Your task to perform on an android device: Open wifi settings Image 0: 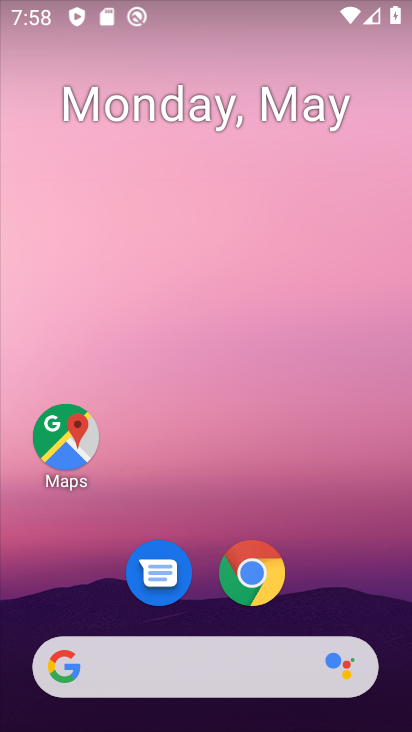
Step 0: drag from (83, 602) to (254, 83)
Your task to perform on an android device: Open wifi settings Image 1: 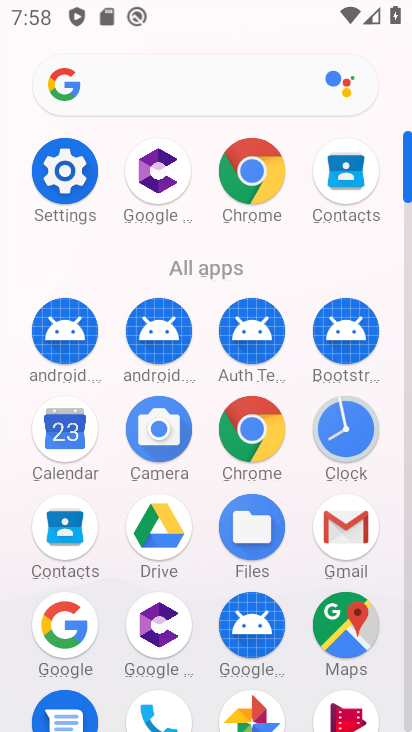
Step 1: drag from (190, 578) to (250, 330)
Your task to perform on an android device: Open wifi settings Image 2: 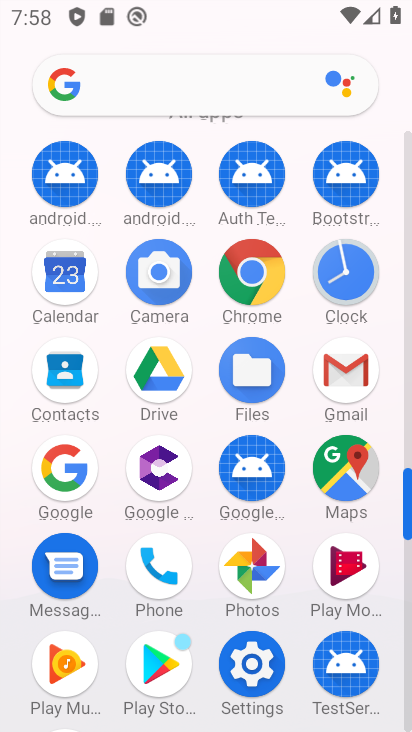
Step 2: click (249, 669)
Your task to perform on an android device: Open wifi settings Image 3: 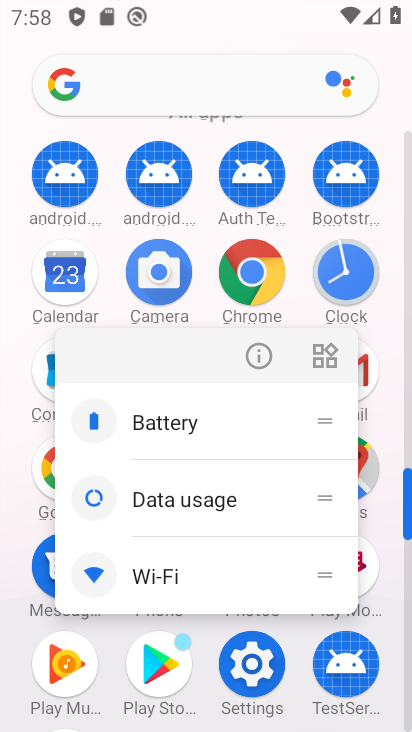
Step 3: click (256, 645)
Your task to perform on an android device: Open wifi settings Image 4: 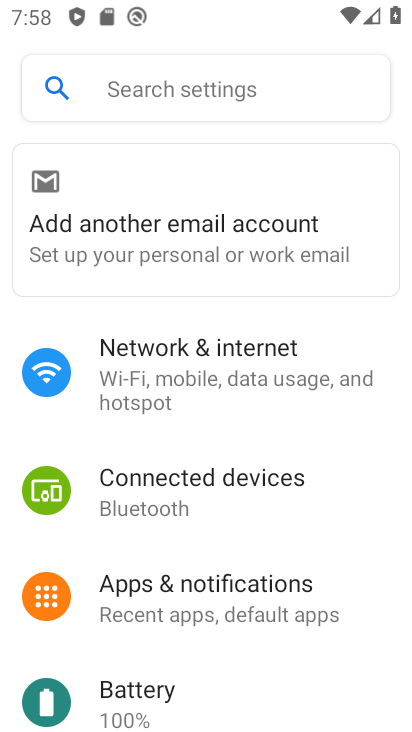
Step 4: click (207, 380)
Your task to perform on an android device: Open wifi settings Image 5: 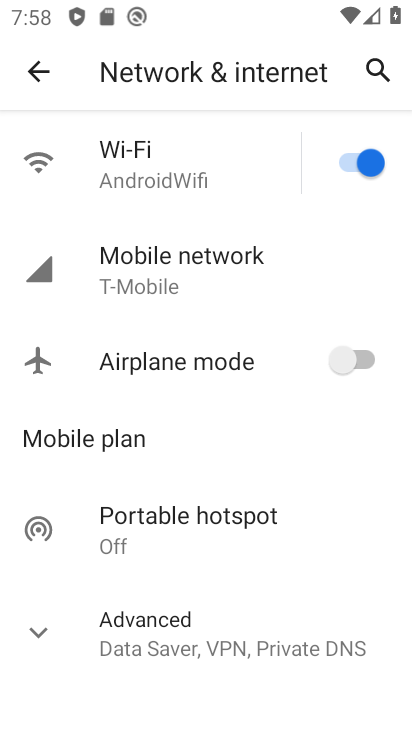
Step 5: click (194, 192)
Your task to perform on an android device: Open wifi settings Image 6: 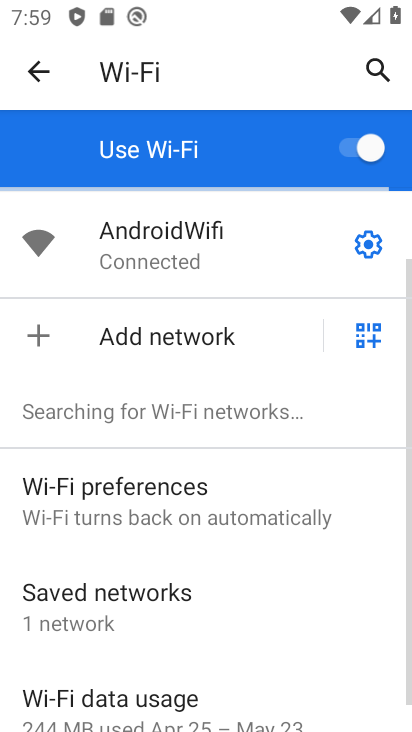
Step 6: task complete